Your task to perform on an android device: check battery use Image 0: 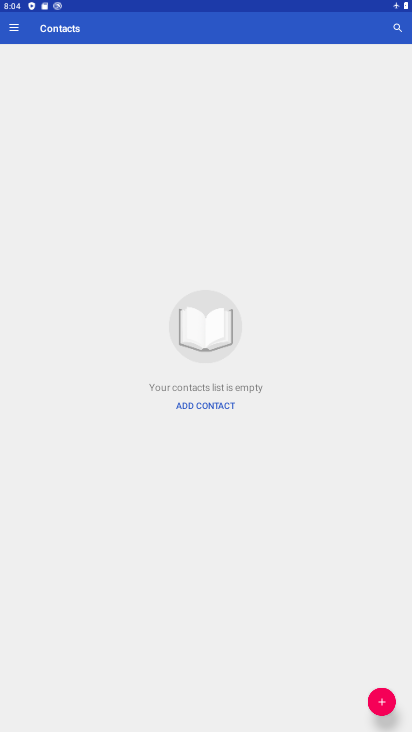
Step 0: press home button
Your task to perform on an android device: check battery use Image 1: 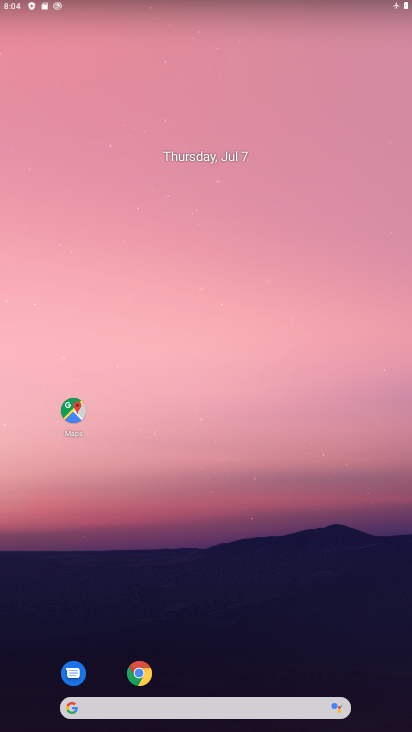
Step 1: drag from (204, 678) to (158, 1)
Your task to perform on an android device: check battery use Image 2: 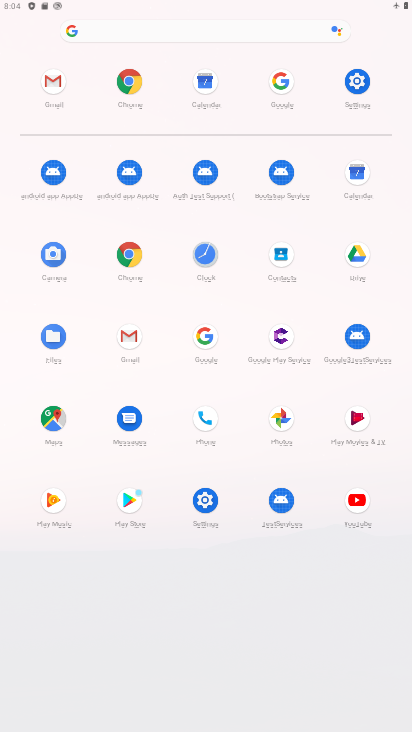
Step 2: click (198, 505)
Your task to perform on an android device: check battery use Image 3: 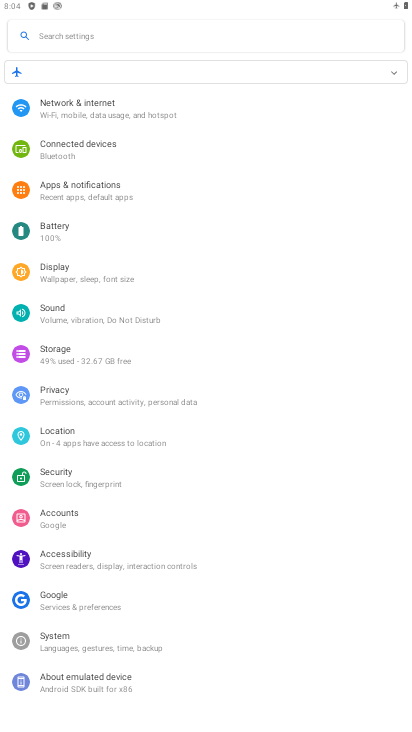
Step 3: click (39, 238)
Your task to perform on an android device: check battery use Image 4: 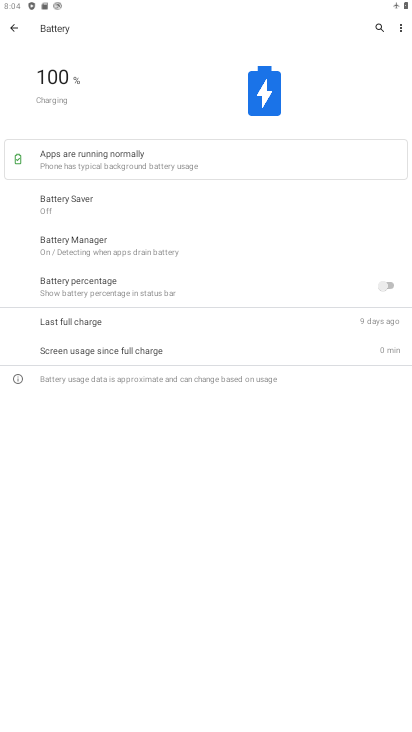
Step 4: task complete